Your task to perform on an android device: turn off javascript in the chrome app Image 0: 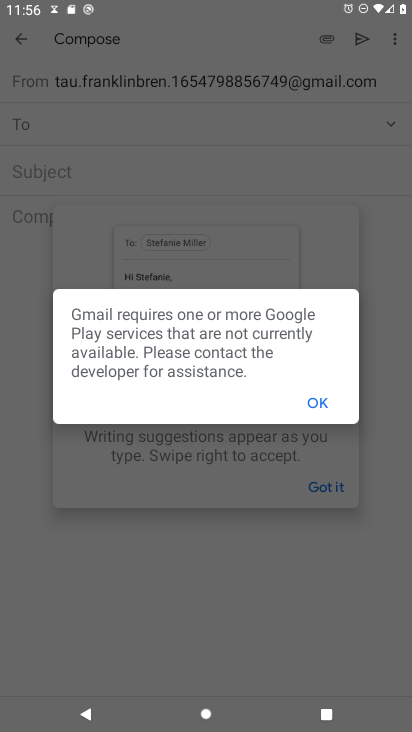
Step 0: press home button
Your task to perform on an android device: turn off javascript in the chrome app Image 1: 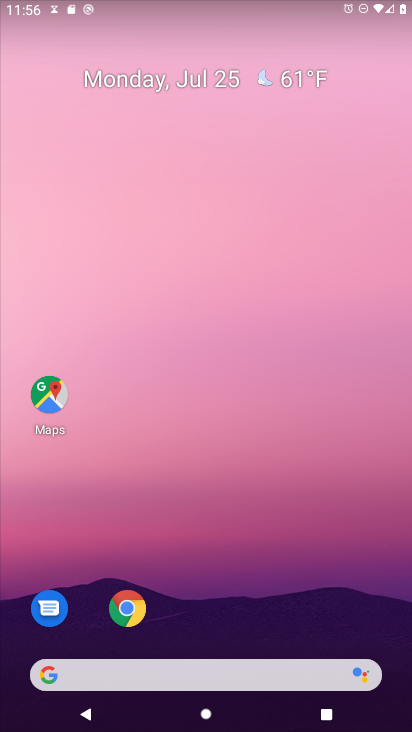
Step 1: click (126, 608)
Your task to perform on an android device: turn off javascript in the chrome app Image 2: 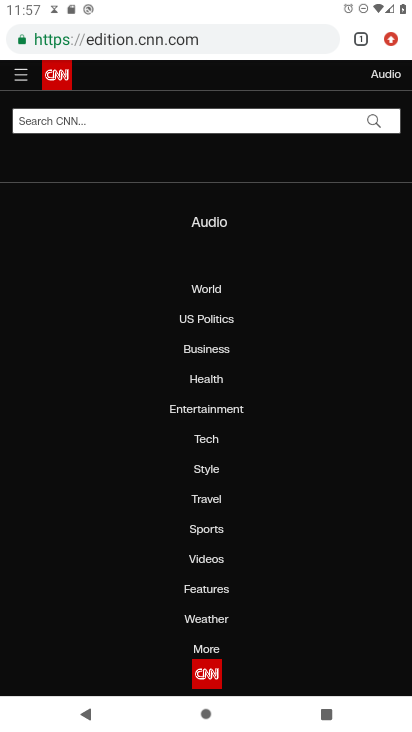
Step 2: click (392, 39)
Your task to perform on an android device: turn off javascript in the chrome app Image 3: 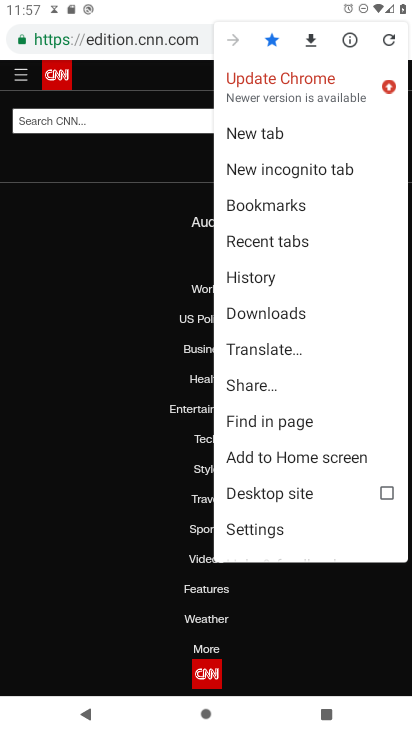
Step 3: click (255, 528)
Your task to perform on an android device: turn off javascript in the chrome app Image 4: 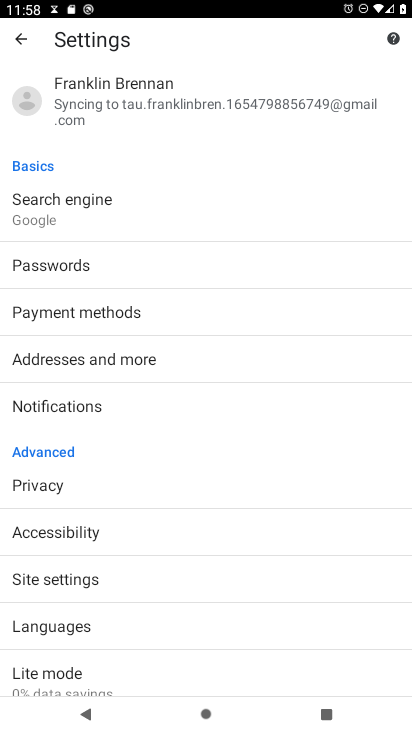
Step 4: click (70, 582)
Your task to perform on an android device: turn off javascript in the chrome app Image 5: 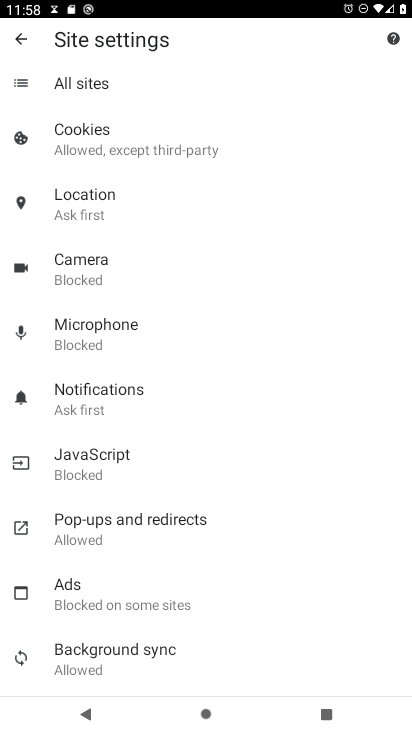
Step 5: click (119, 462)
Your task to perform on an android device: turn off javascript in the chrome app Image 6: 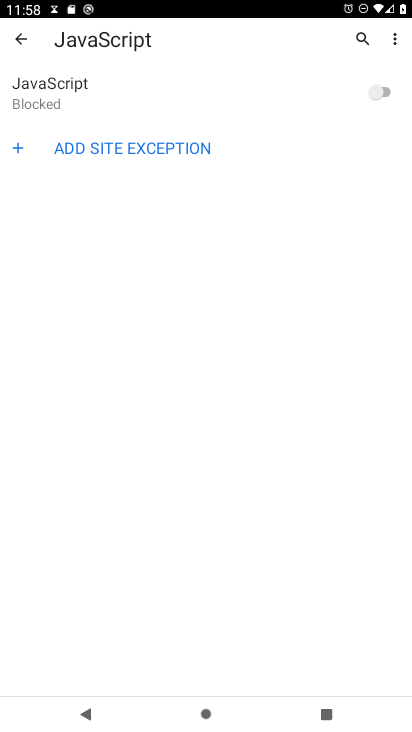
Step 6: task complete